Your task to perform on an android device: Open calendar and show me the first week of next month Image 0: 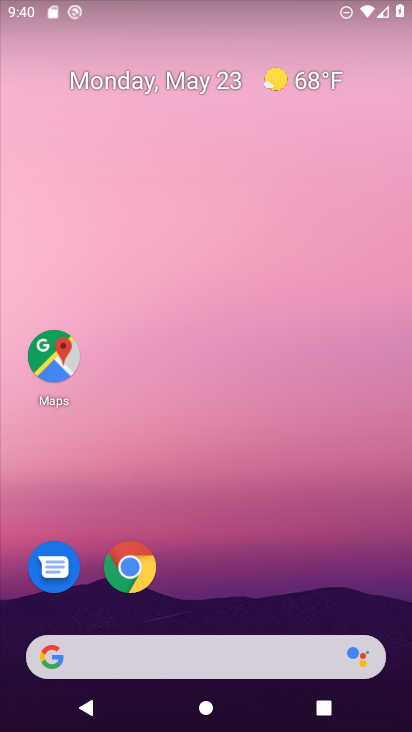
Step 0: drag from (169, 586) to (342, 64)
Your task to perform on an android device: Open calendar and show me the first week of next month Image 1: 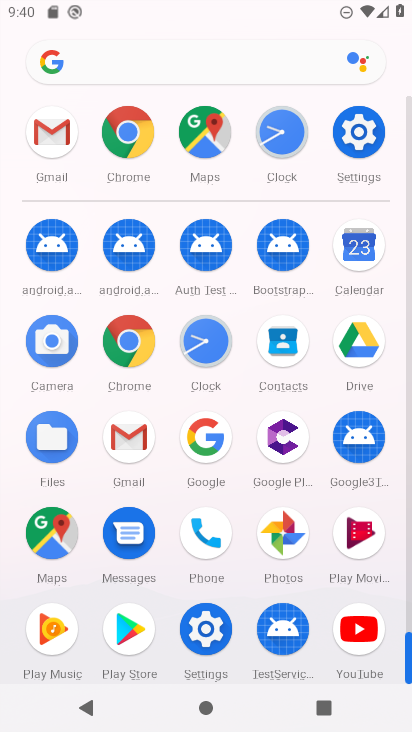
Step 1: click (351, 248)
Your task to perform on an android device: Open calendar and show me the first week of next month Image 2: 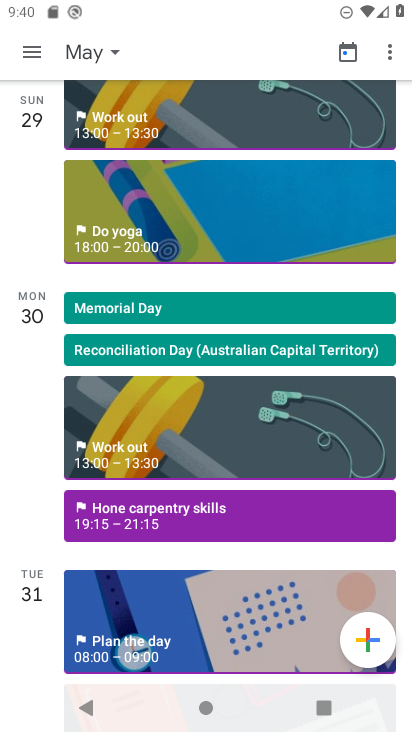
Step 2: drag from (216, 626) to (304, 253)
Your task to perform on an android device: Open calendar and show me the first week of next month Image 3: 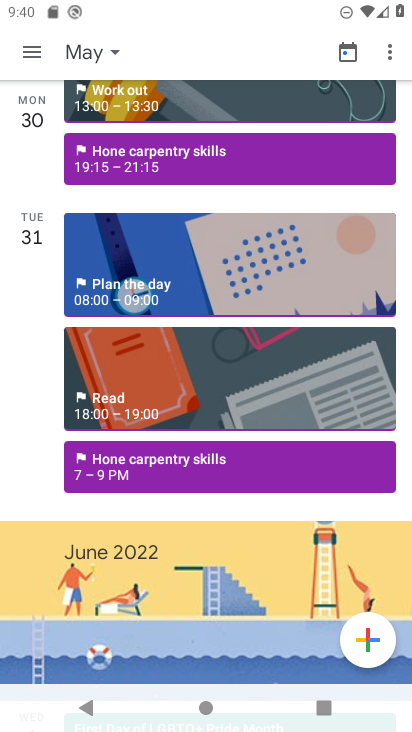
Step 3: drag from (274, 268) to (263, 623)
Your task to perform on an android device: Open calendar and show me the first week of next month Image 4: 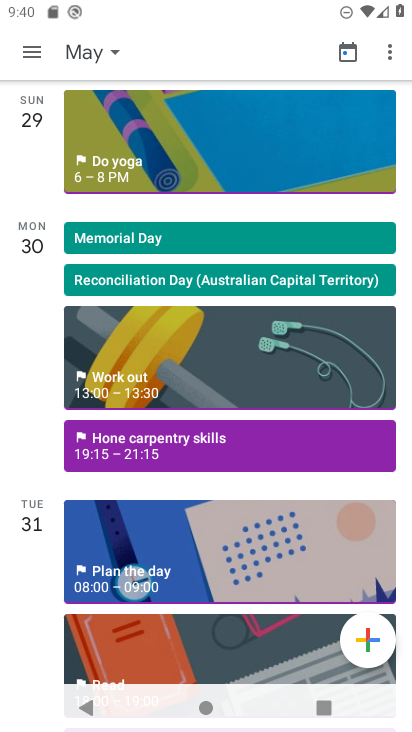
Step 4: drag from (240, 540) to (302, 178)
Your task to perform on an android device: Open calendar and show me the first week of next month Image 5: 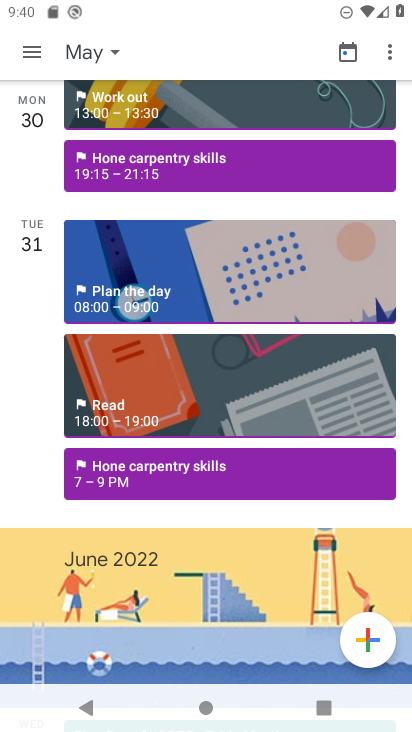
Step 5: drag from (273, 218) to (272, 707)
Your task to perform on an android device: Open calendar and show me the first week of next month Image 6: 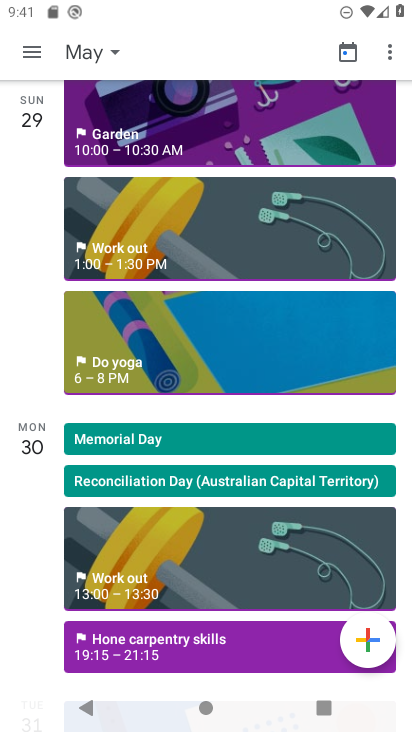
Step 6: drag from (220, 639) to (254, 107)
Your task to perform on an android device: Open calendar and show me the first week of next month Image 7: 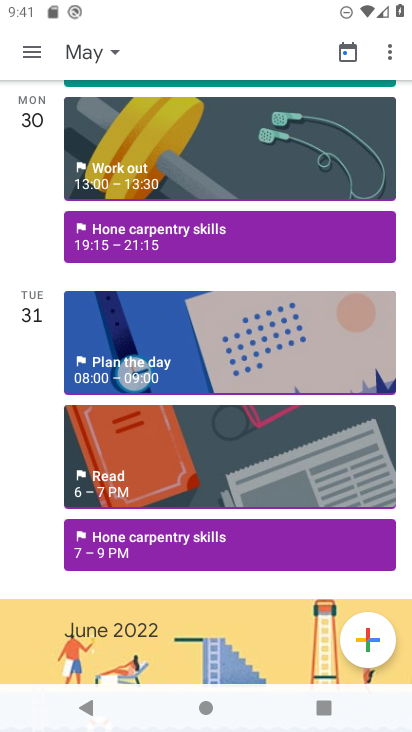
Step 7: drag from (196, 310) to (213, 615)
Your task to perform on an android device: Open calendar and show me the first week of next month Image 8: 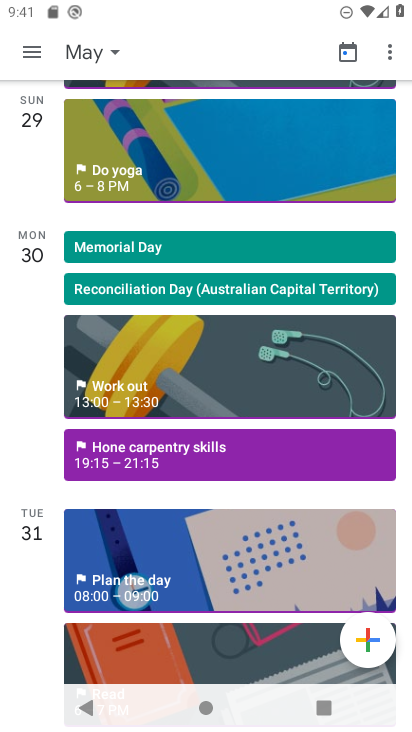
Step 8: drag from (232, 646) to (294, 297)
Your task to perform on an android device: Open calendar and show me the first week of next month Image 9: 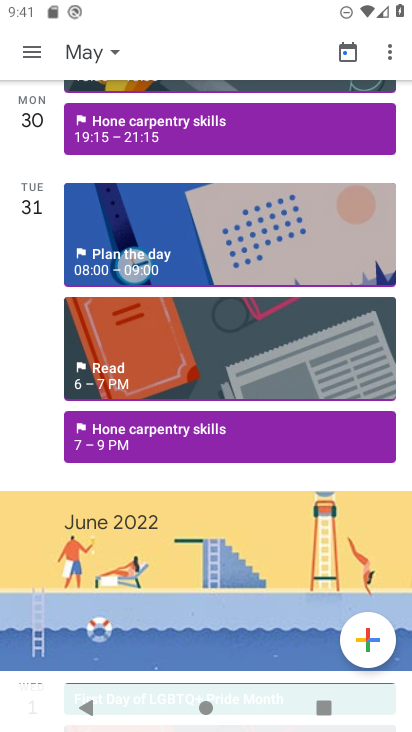
Step 9: drag from (148, 205) to (240, 731)
Your task to perform on an android device: Open calendar and show me the first week of next month Image 10: 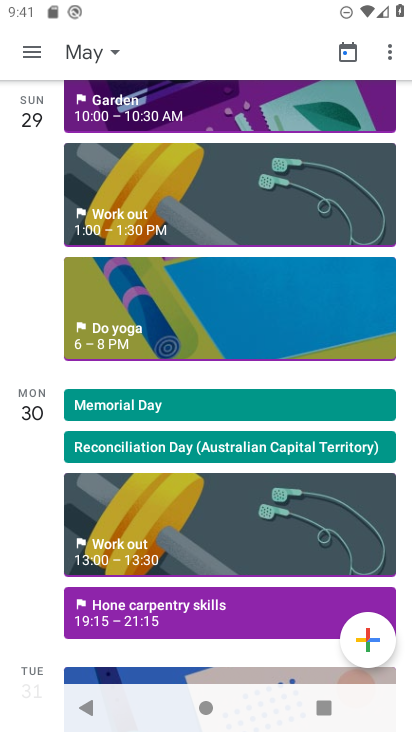
Step 10: click (81, 48)
Your task to perform on an android device: Open calendar and show me the first week of next month Image 11: 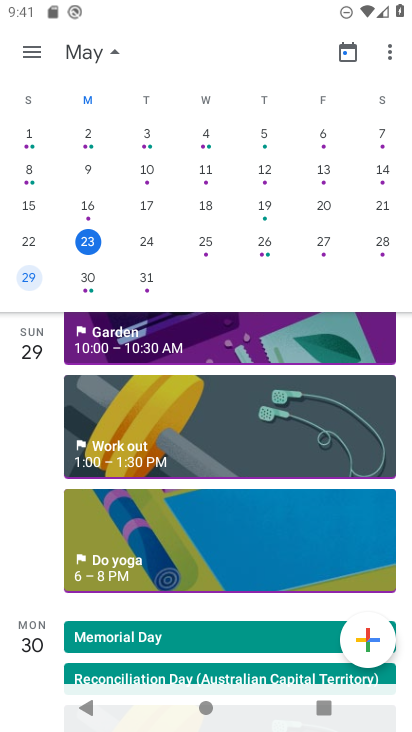
Step 11: drag from (374, 216) to (8, 164)
Your task to perform on an android device: Open calendar and show me the first week of next month Image 12: 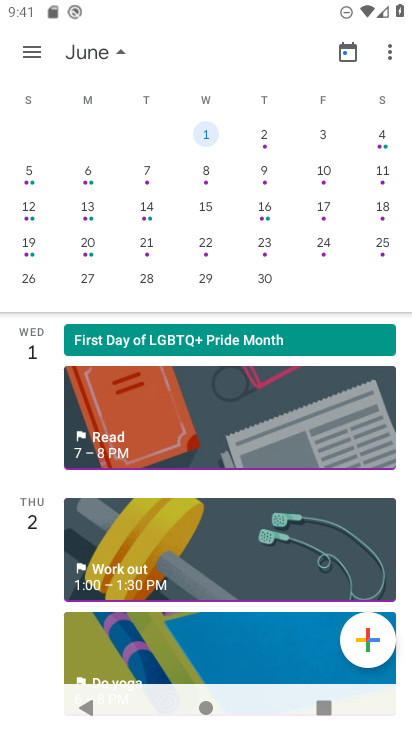
Step 12: click (262, 137)
Your task to perform on an android device: Open calendar and show me the first week of next month Image 13: 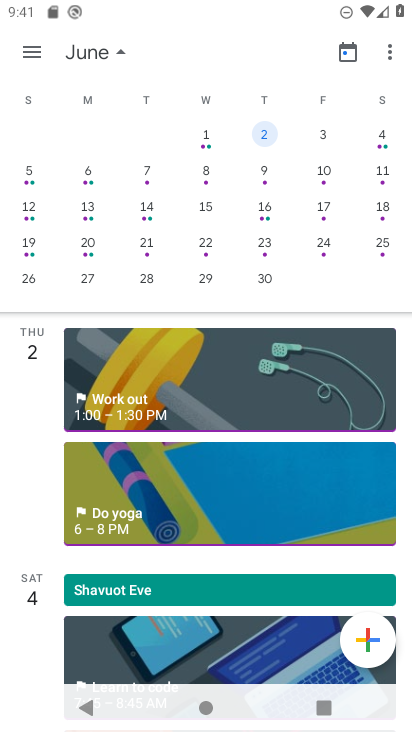
Step 13: task complete